Your task to perform on an android device: What's the weather? Image 0: 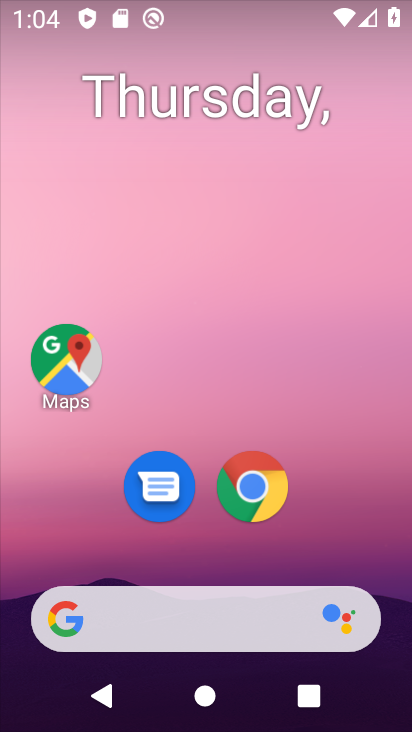
Step 0: drag from (390, 560) to (322, 106)
Your task to perform on an android device: What's the weather? Image 1: 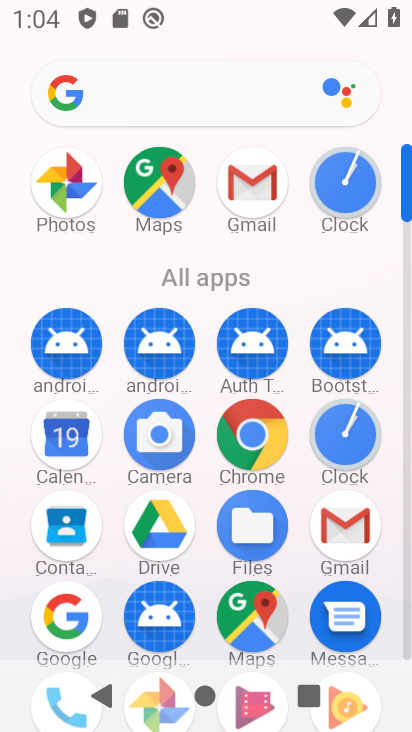
Step 1: click (407, 636)
Your task to perform on an android device: What's the weather? Image 2: 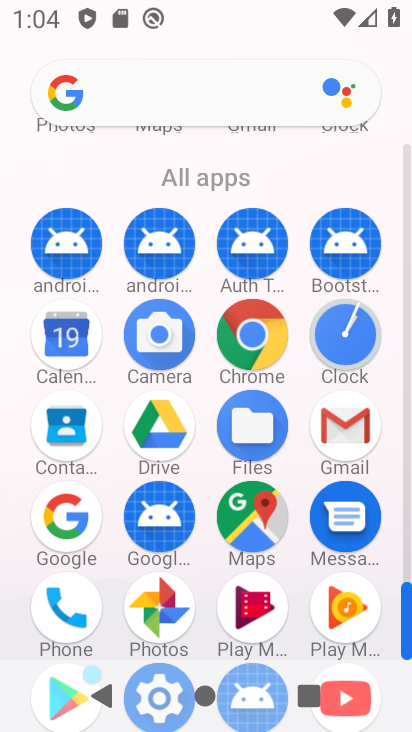
Step 2: drag from (401, 562) to (394, 420)
Your task to perform on an android device: What's the weather? Image 3: 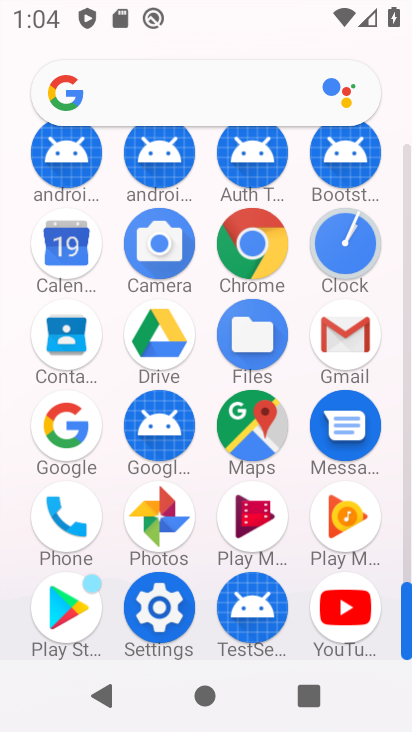
Step 3: click (167, 620)
Your task to perform on an android device: What's the weather? Image 4: 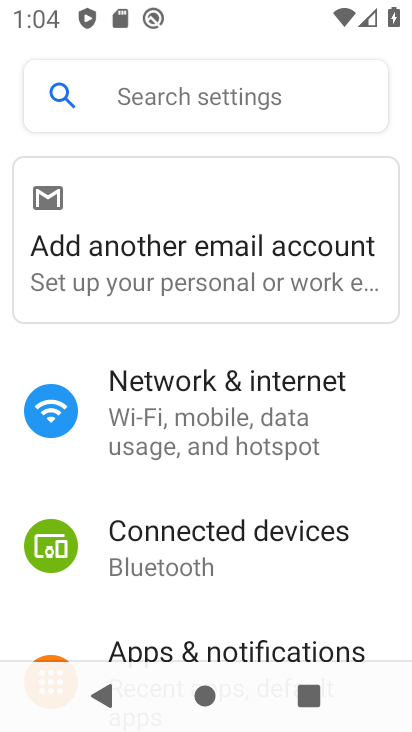
Step 4: press home button
Your task to perform on an android device: What's the weather? Image 5: 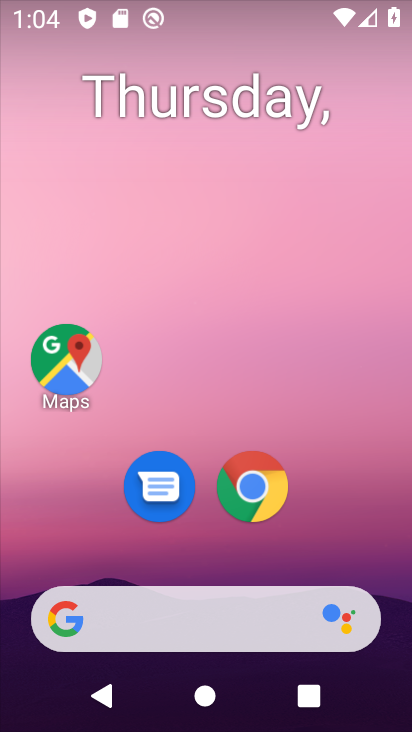
Step 5: click (258, 483)
Your task to perform on an android device: What's the weather? Image 6: 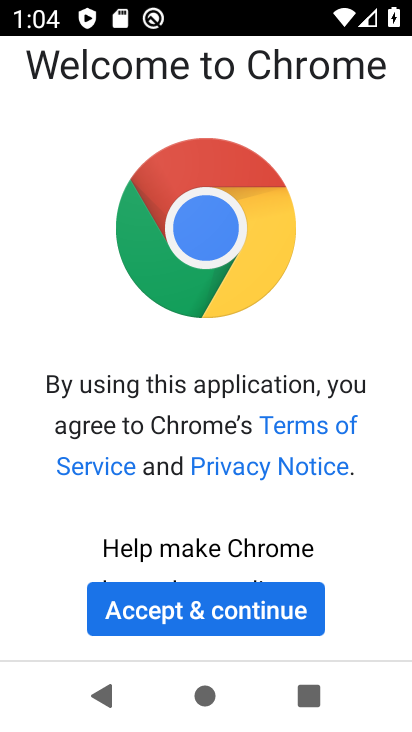
Step 6: click (253, 605)
Your task to perform on an android device: What's the weather? Image 7: 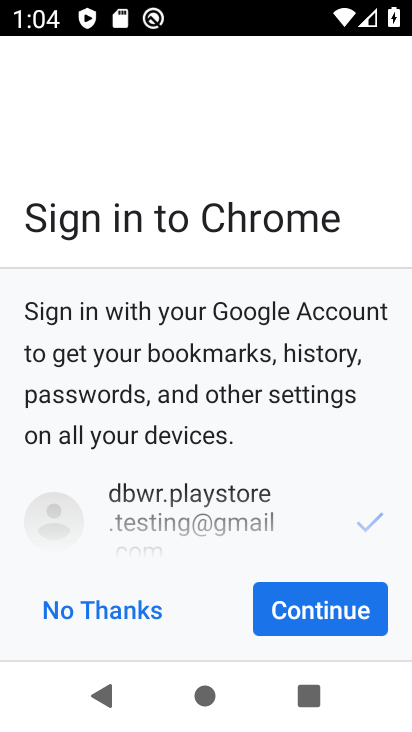
Step 7: click (338, 615)
Your task to perform on an android device: What's the weather? Image 8: 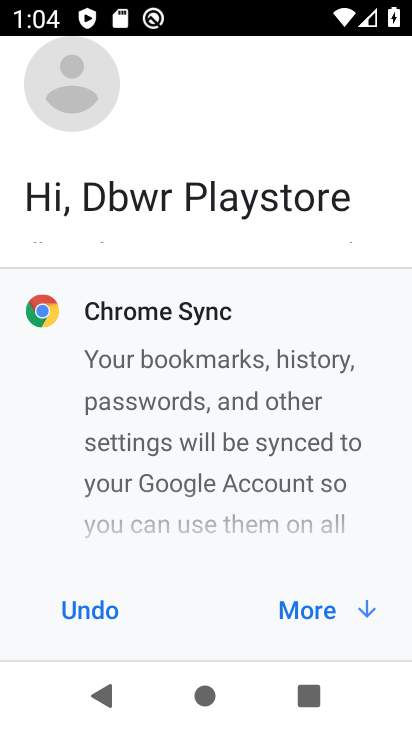
Step 8: click (338, 615)
Your task to perform on an android device: What's the weather? Image 9: 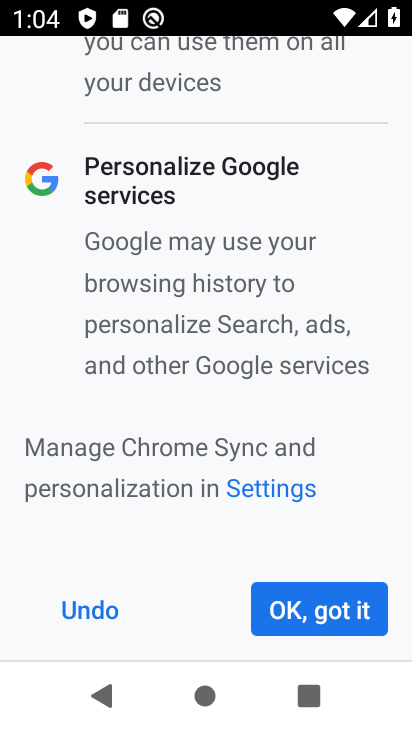
Step 9: click (338, 615)
Your task to perform on an android device: What's the weather? Image 10: 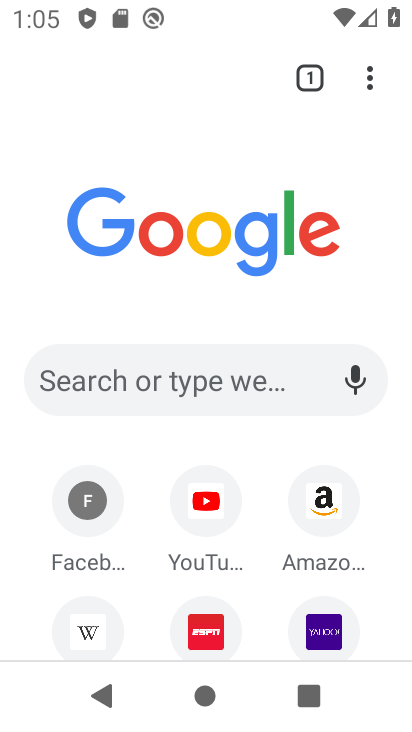
Step 10: click (169, 370)
Your task to perform on an android device: What's the weather? Image 11: 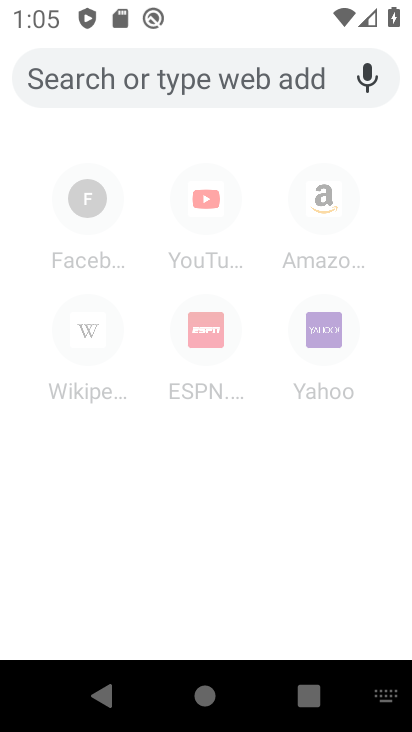
Step 11: type "What's the weather?"
Your task to perform on an android device: What's the weather? Image 12: 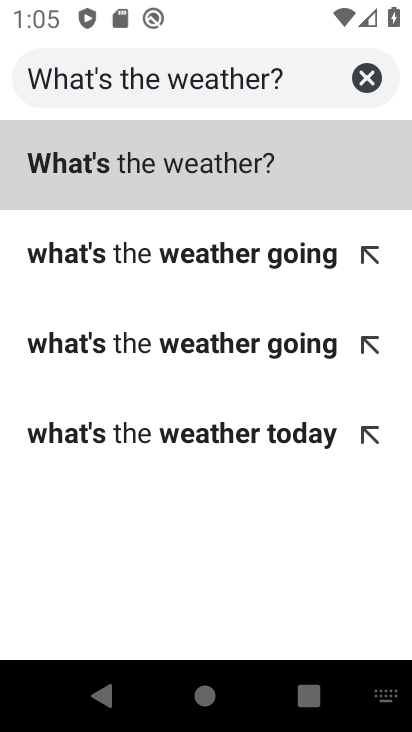
Step 12: click (173, 167)
Your task to perform on an android device: What's the weather? Image 13: 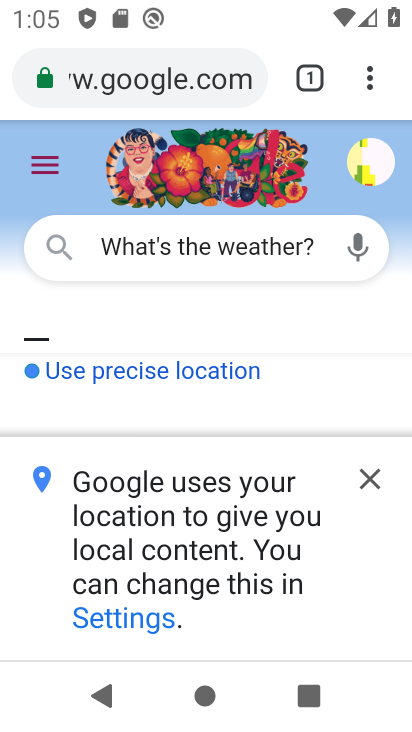
Step 13: click (378, 478)
Your task to perform on an android device: What's the weather? Image 14: 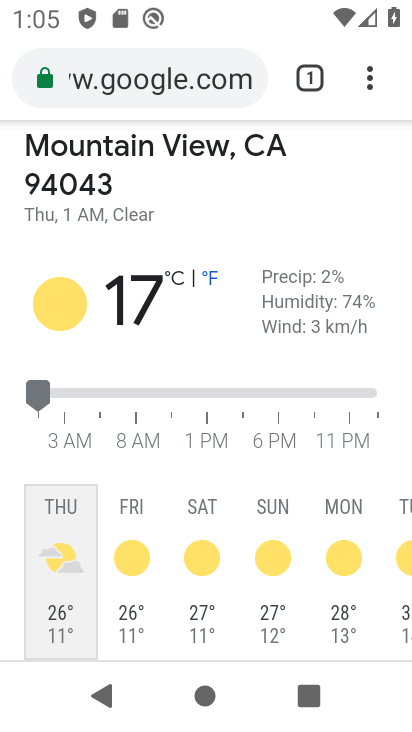
Step 14: task complete